Your task to perform on an android device: Is it going to rain this weekend? Image 0: 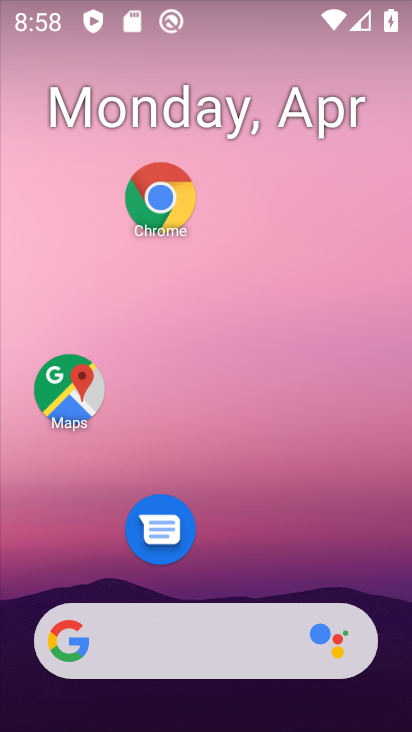
Step 0: drag from (326, 145) to (219, 164)
Your task to perform on an android device: Is it going to rain this weekend? Image 1: 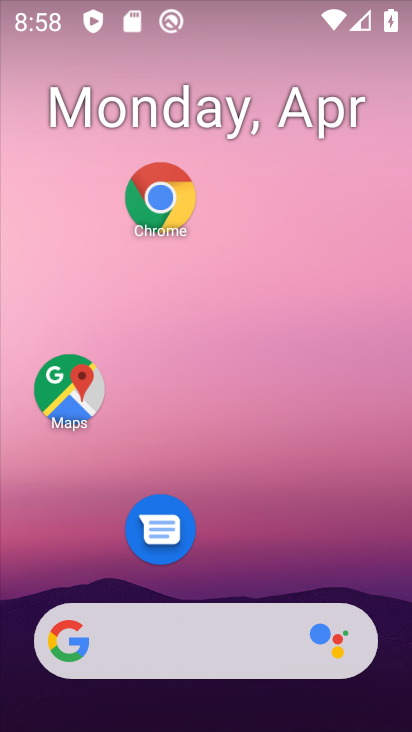
Step 1: drag from (340, 310) to (67, 298)
Your task to perform on an android device: Is it going to rain this weekend? Image 2: 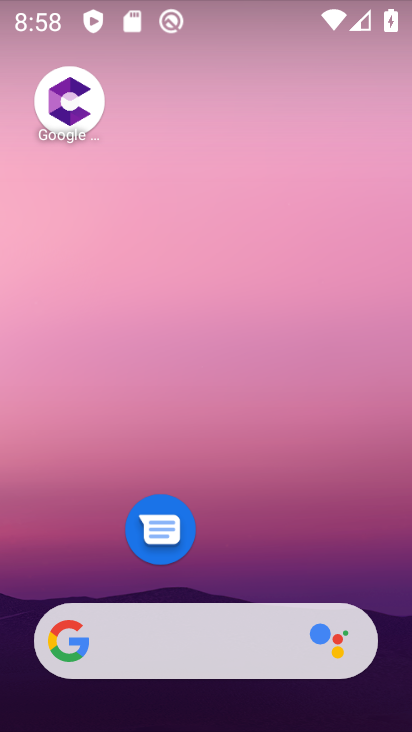
Step 2: drag from (377, 325) to (48, 278)
Your task to perform on an android device: Is it going to rain this weekend? Image 3: 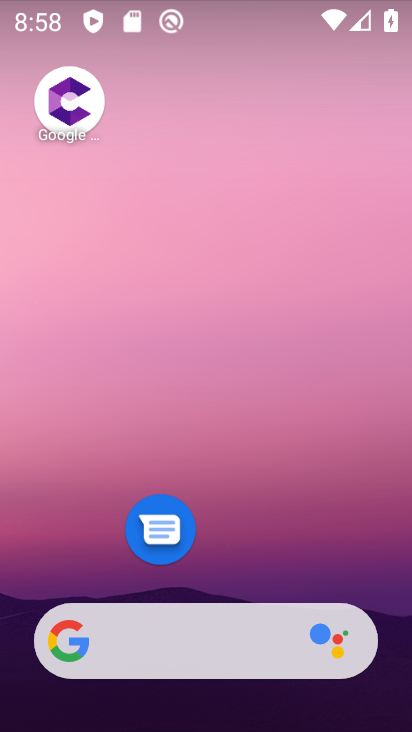
Step 3: drag from (60, 287) to (397, 251)
Your task to perform on an android device: Is it going to rain this weekend? Image 4: 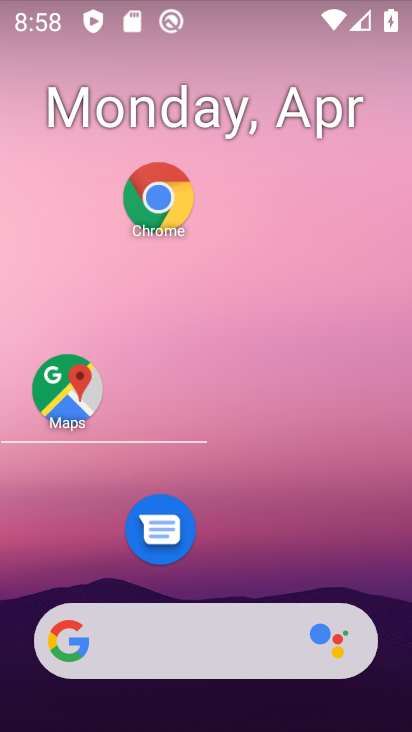
Step 4: drag from (28, 238) to (399, 282)
Your task to perform on an android device: Is it going to rain this weekend? Image 5: 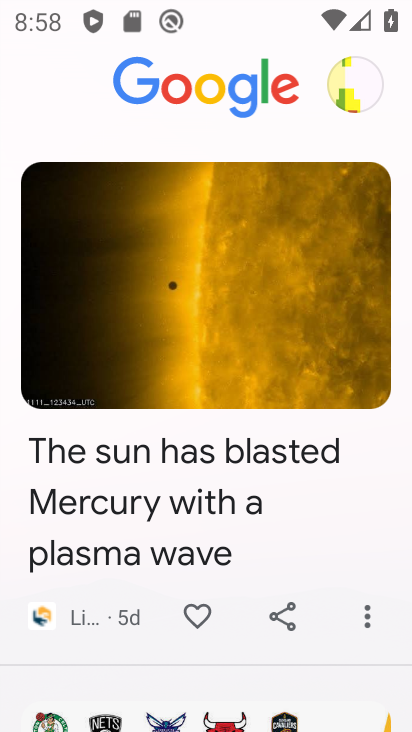
Step 5: drag from (376, 370) to (58, 379)
Your task to perform on an android device: Is it going to rain this weekend? Image 6: 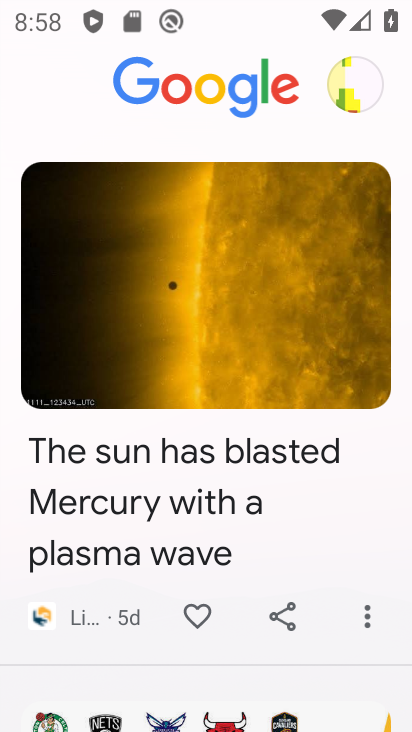
Step 6: drag from (310, 534) to (4, 539)
Your task to perform on an android device: Is it going to rain this weekend? Image 7: 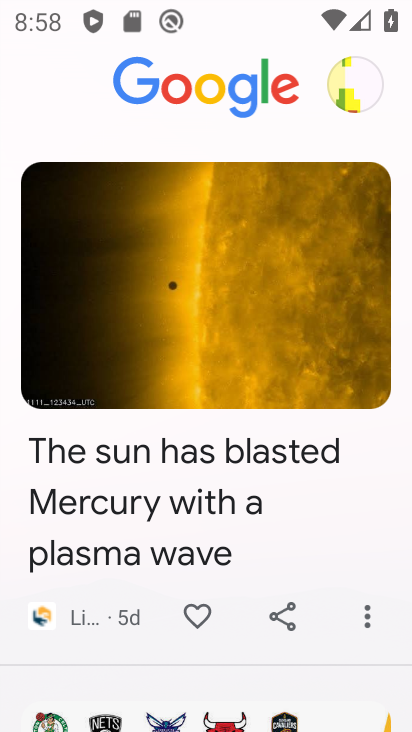
Step 7: drag from (395, 426) to (27, 400)
Your task to perform on an android device: Is it going to rain this weekend? Image 8: 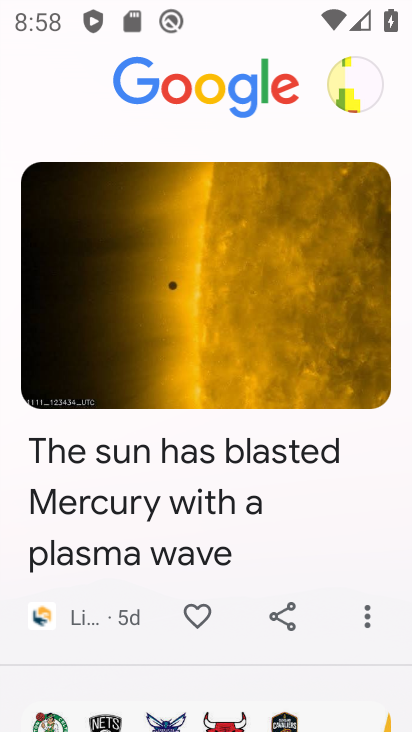
Step 8: drag from (399, 293) to (18, 324)
Your task to perform on an android device: Is it going to rain this weekend? Image 9: 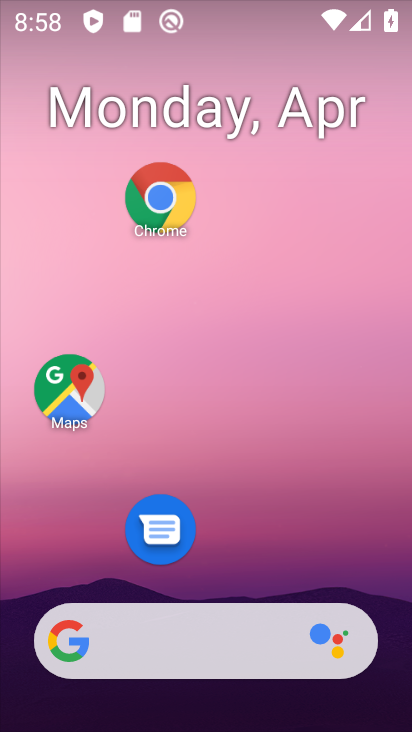
Step 9: click (222, 650)
Your task to perform on an android device: Is it going to rain this weekend? Image 10: 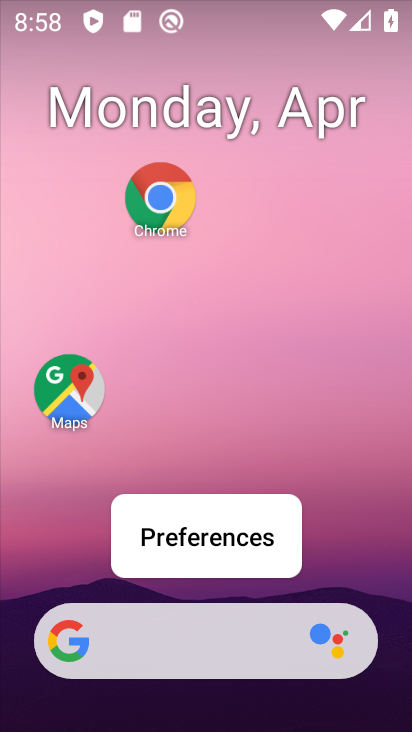
Step 10: click (203, 633)
Your task to perform on an android device: Is it going to rain this weekend? Image 11: 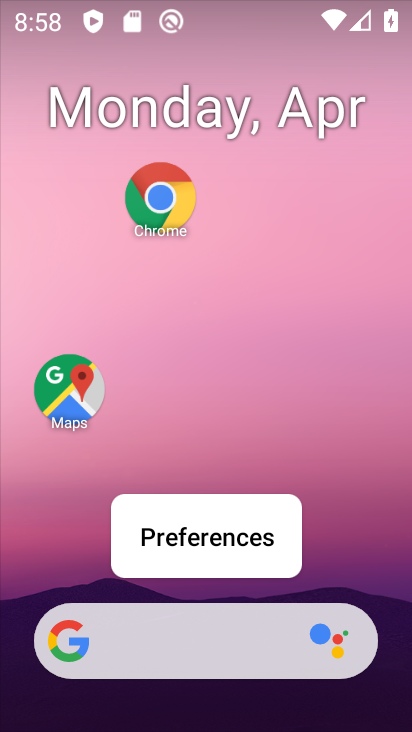
Step 11: click (155, 639)
Your task to perform on an android device: Is it going to rain this weekend? Image 12: 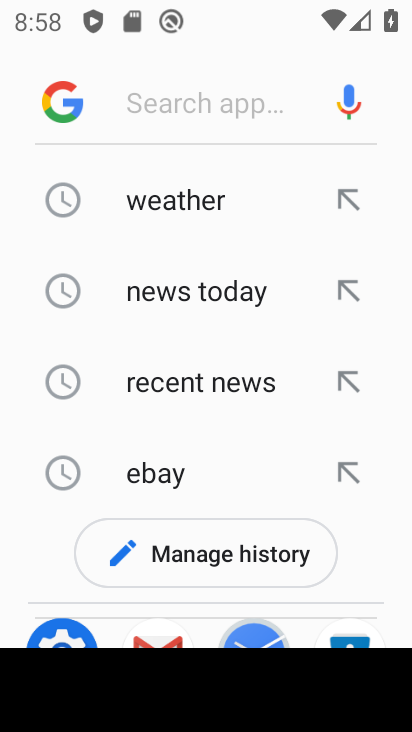
Step 12: click (186, 202)
Your task to perform on an android device: Is it going to rain this weekend? Image 13: 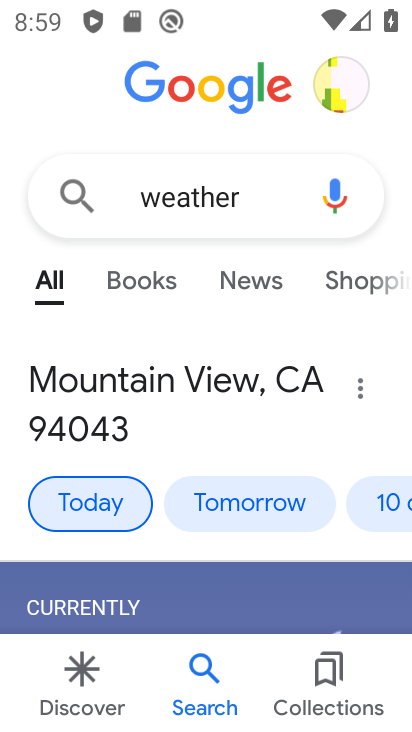
Step 13: drag from (236, 598) to (260, 50)
Your task to perform on an android device: Is it going to rain this weekend? Image 14: 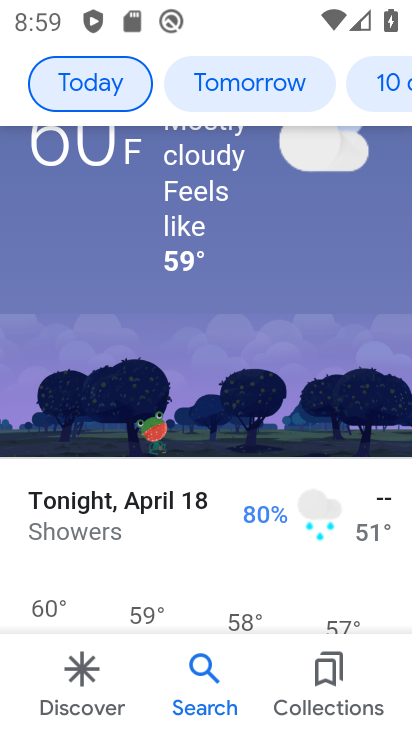
Step 14: click (388, 86)
Your task to perform on an android device: Is it going to rain this weekend? Image 15: 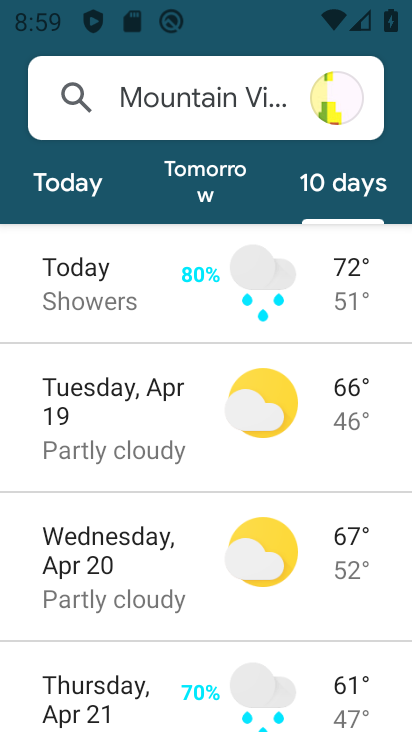
Step 15: task complete